Your task to perform on an android device: Open Wikipedia Image 0: 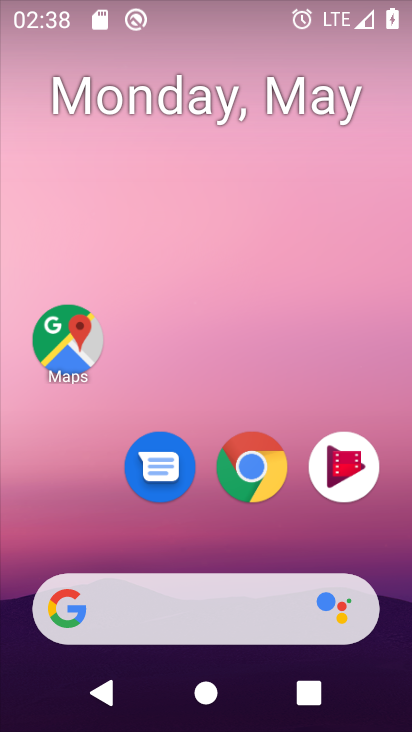
Step 0: drag from (203, 503) to (203, 234)
Your task to perform on an android device: Open Wikipedia Image 1: 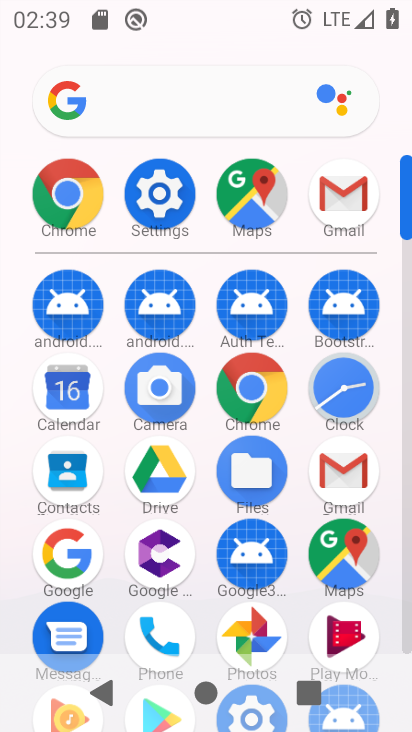
Step 1: click (66, 198)
Your task to perform on an android device: Open Wikipedia Image 2: 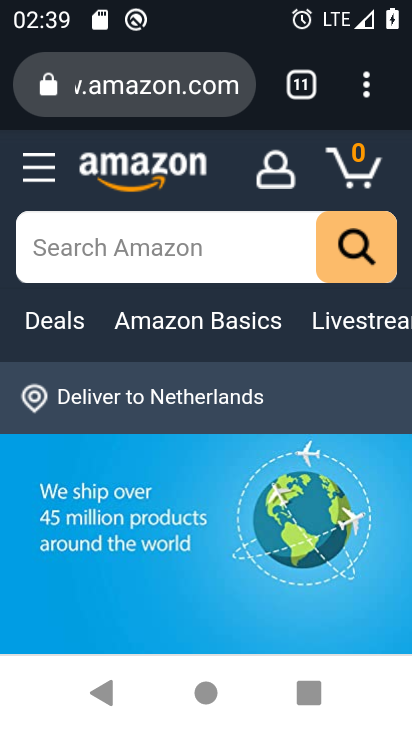
Step 2: click (348, 87)
Your task to perform on an android device: Open Wikipedia Image 3: 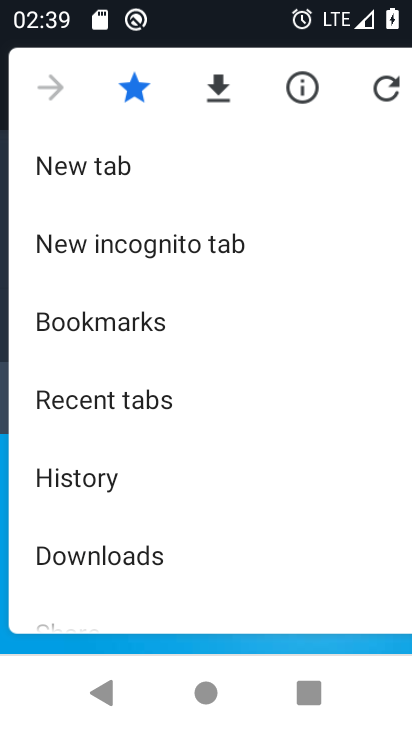
Step 3: click (96, 171)
Your task to perform on an android device: Open Wikipedia Image 4: 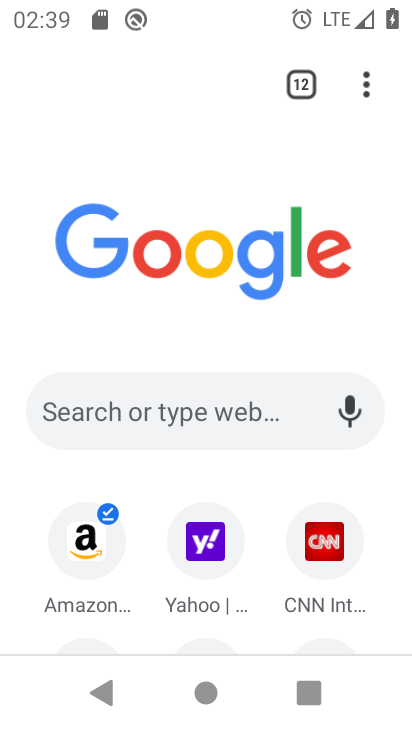
Step 4: drag from (118, 570) to (165, 301)
Your task to perform on an android device: Open Wikipedia Image 5: 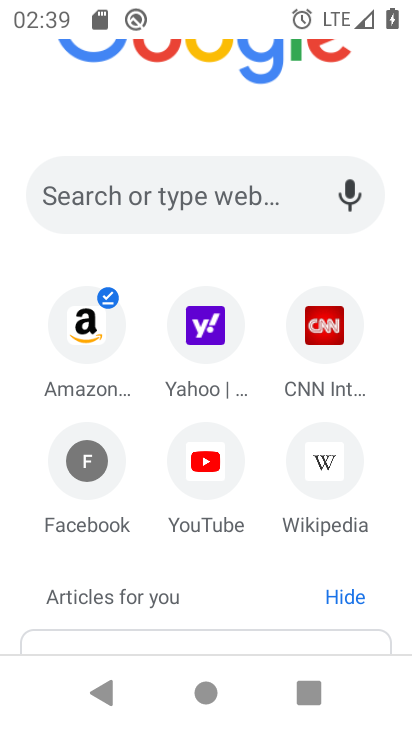
Step 5: click (333, 456)
Your task to perform on an android device: Open Wikipedia Image 6: 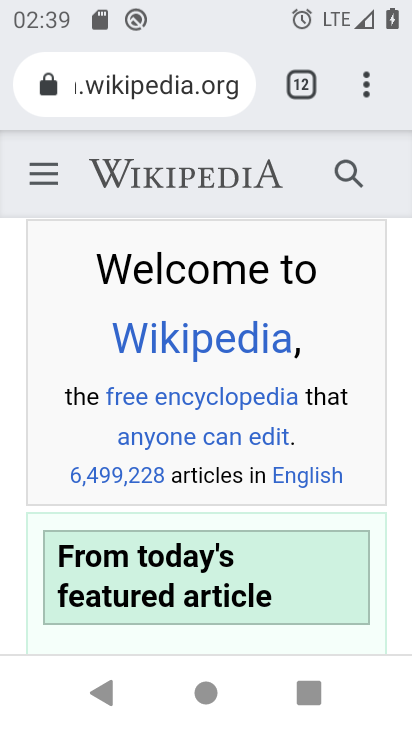
Step 6: task complete